Your task to perform on an android device: change the clock display to digital Image 0: 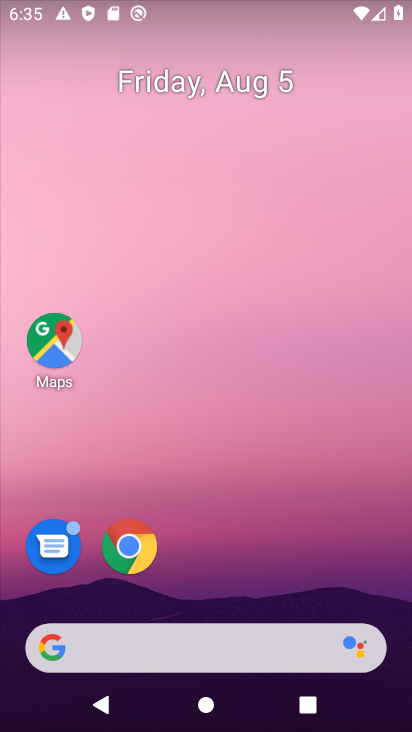
Step 0: drag from (157, 596) to (271, 0)
Your task to perform on an android device: change the clock display to digital Image 1: 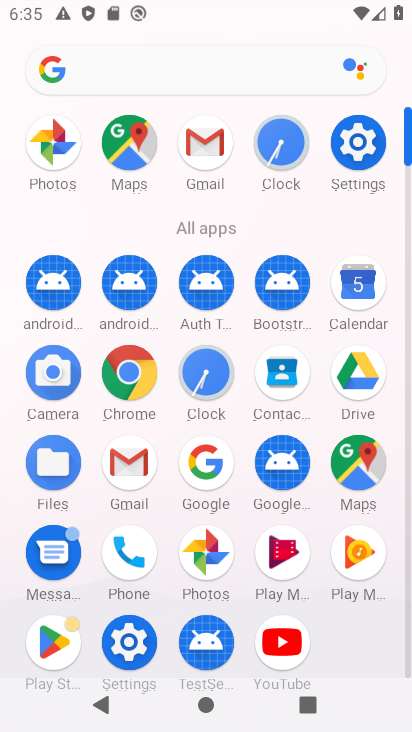
Step 1: click (204, 375)
Your task to perform on an android device: change the clock display to digital Image 2: 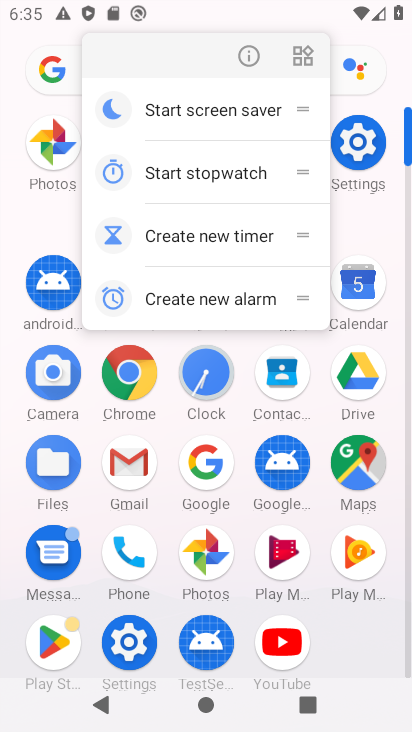
Step 2: click (256, 52)
Your task to perform on an android device: change the clock display to digital Image 3: 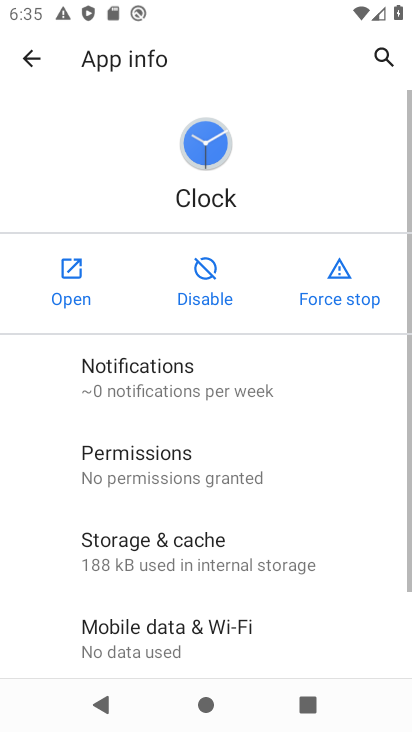
Step 3: click (79, 265)
Your task to perform on an android device: change the clock display to digital Image 4: 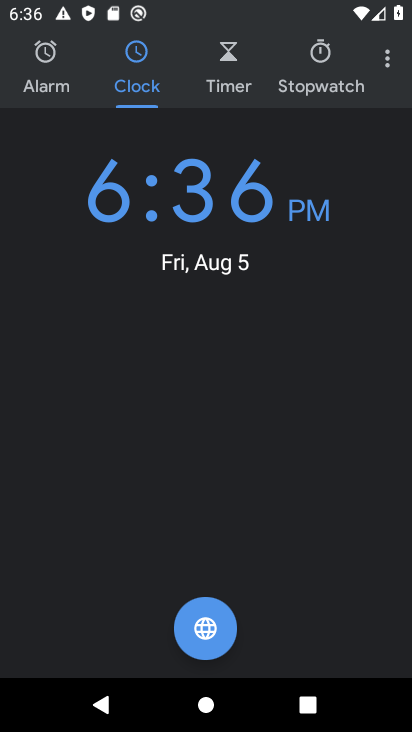
Step 4: click (381, 60)
Your task to perform on an android device: change the clock display to digital Image 5: 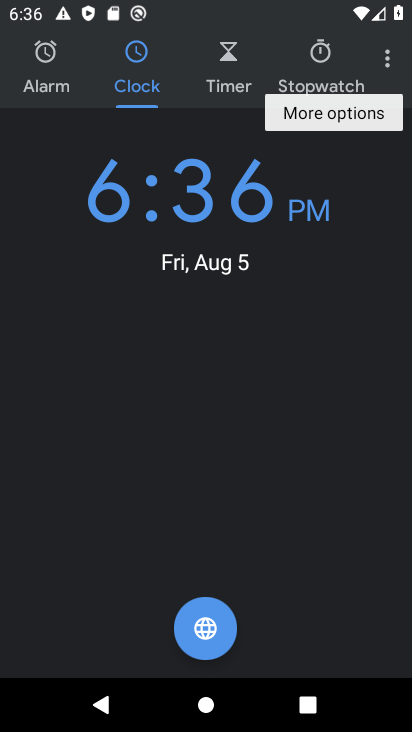
Step 5: click (386, 67)
Your task to perform on an android device: change the clock display to digital Image 6: 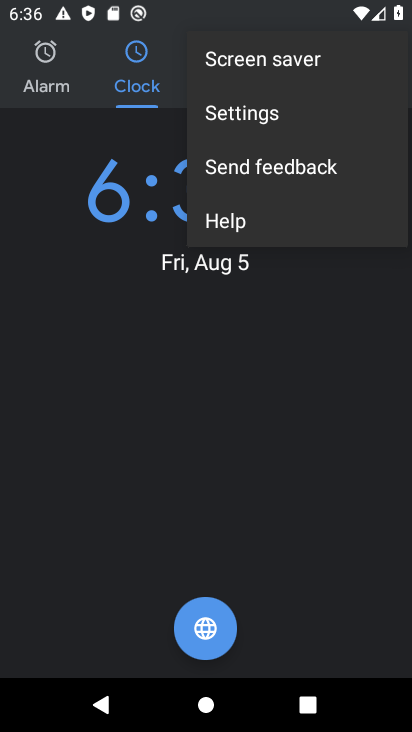
Step 6: click (252, 117)
Your task to perform on an android device: change the clock display to digital Image 7: 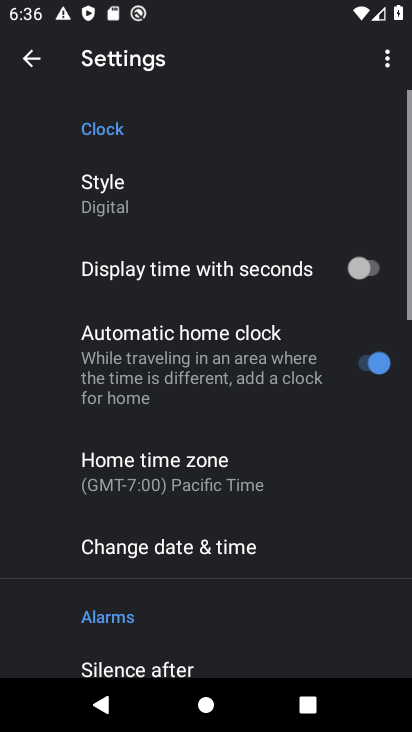
Step 7: click (175, 200)
Your task to perform on an android device: change the clock display to digital Image 8: 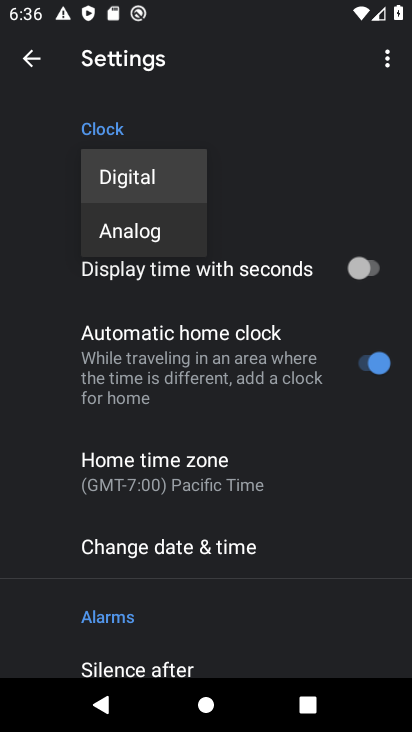
Step 8: click (123, 190)
Your task to perform on an android device: change the clock display to digital Image 9: 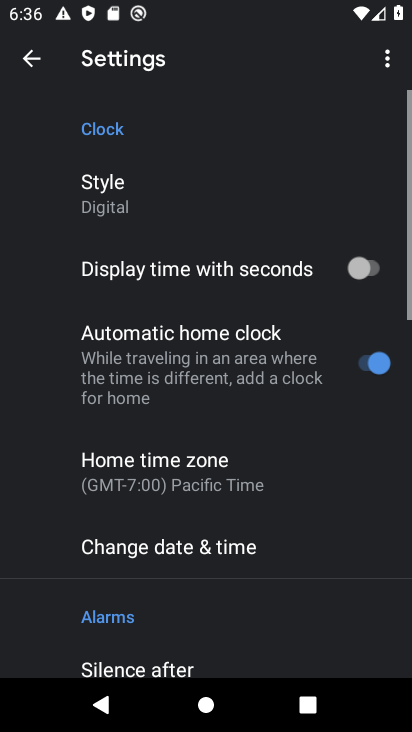
Step 9: task complete